Your task to perform on an android device: Clear the shopping cart on walmart. Search for "macbook pro" on walmart, select the first entry, and add it to the cart. Image 0: 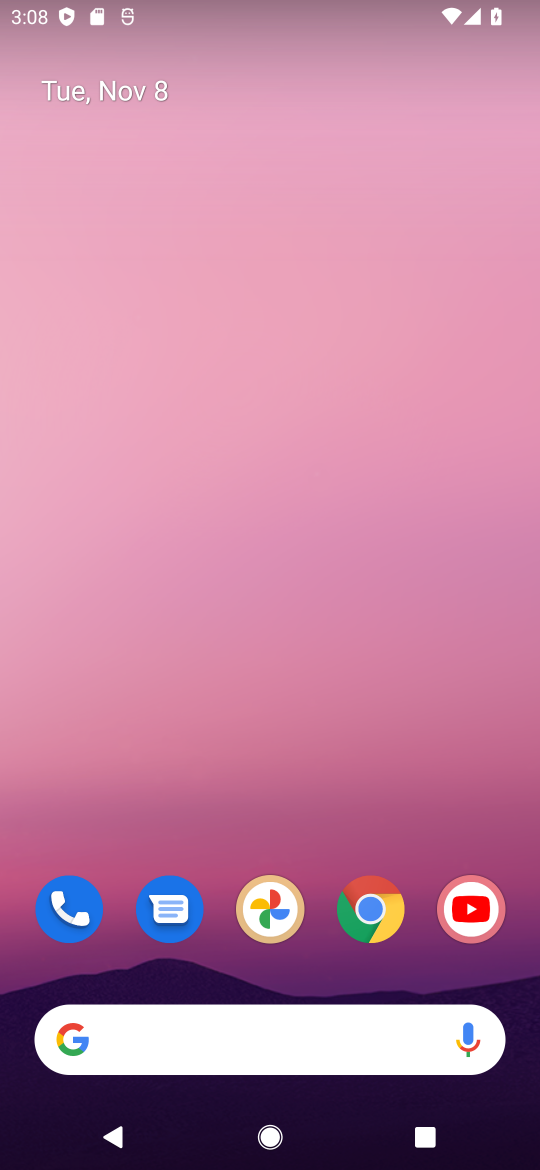
Step 0: click (370, 904)
Your task to perform on an android device: Clear the shopping cart on walmart. Search for "macbook pro" on walmart, select the first entry, and add it to the cart. Image 1: 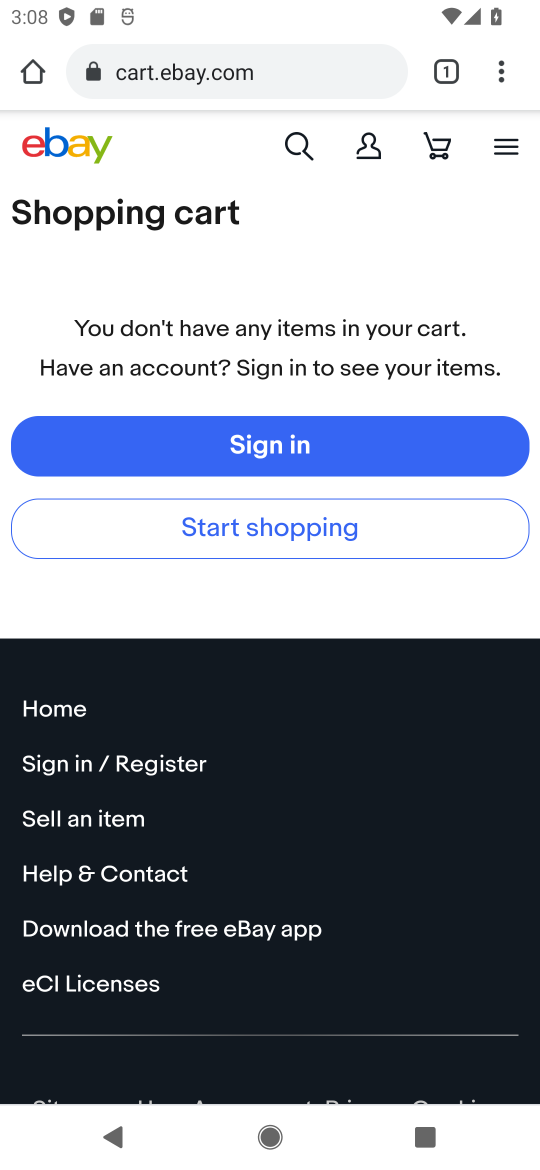
Step 1: click (273, 54)
Your task to perform on an android device: Clear the shopping cart on walmart. Search for "macbook pro" on walmart, select the first entry, and add it to the cart. Image 2: 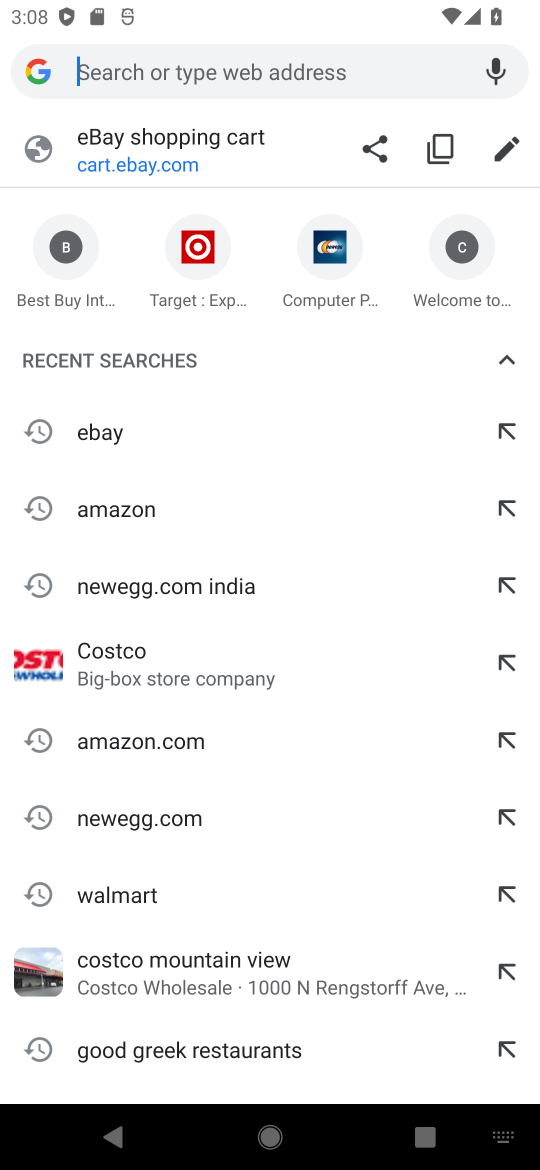
Step 2: click (110, 890)
Your task to perform on an android device: Clear the shopping cart on walmart. Search for "macbook pro" on walmart, select the first entry, and add it to the cart. Image 3: 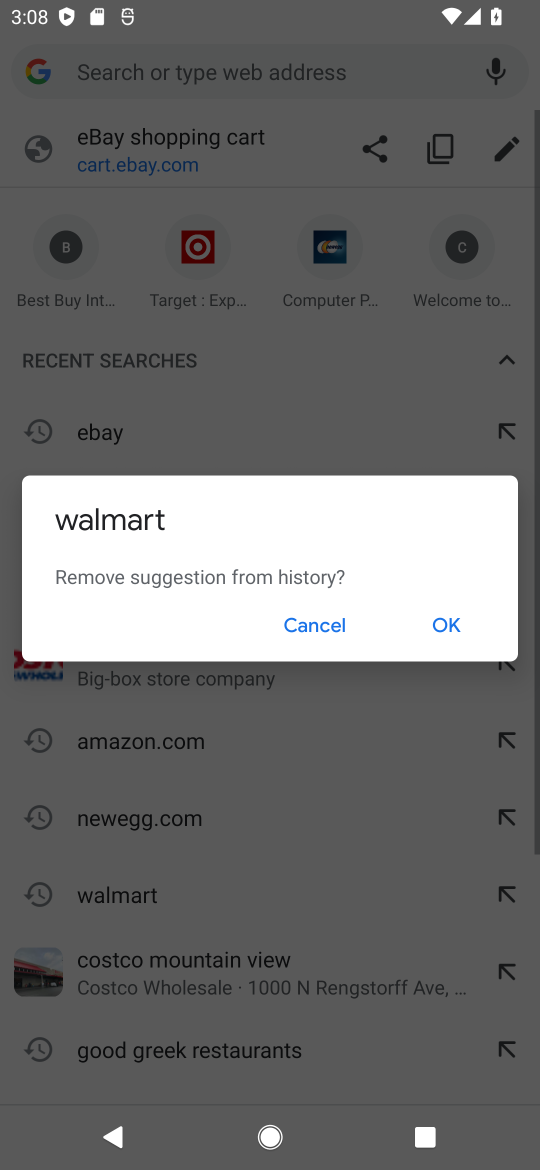
Step 3: click (94, 890)
Your task to perform on an android device: Clear the shopping cart on walmart. Search for "macbook pro" on walmart, select the first entry, and add it to the cart. Image 4: 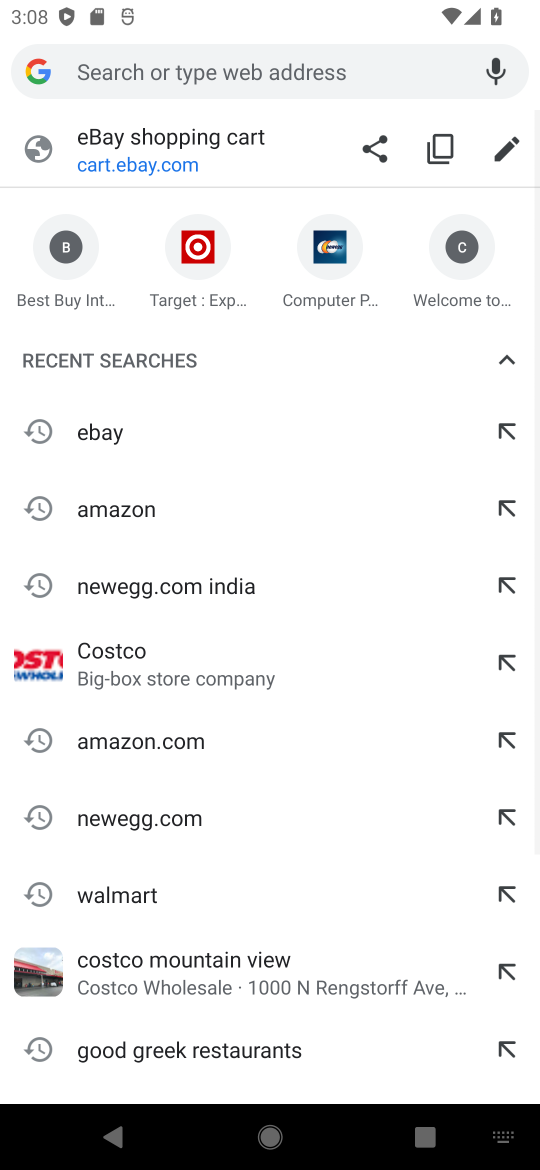
Step 4: click (100, 896)
Your task to perform on an android device: Clear the shopping cart on walmart. Search for "macbook pro" on walmart, select the first entry, and add it to the cart. Image 5: 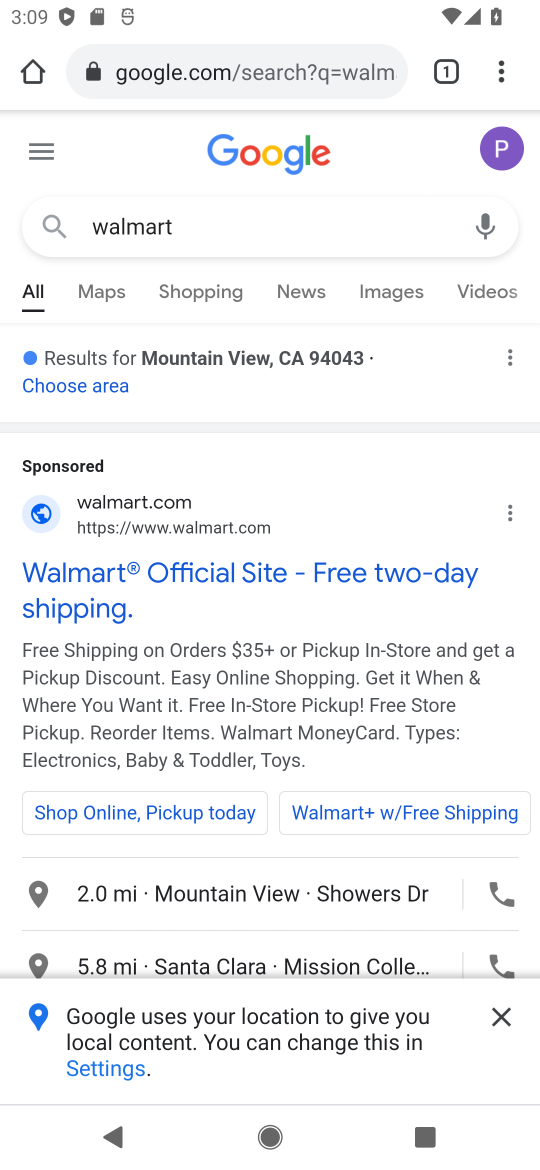
Step 5: click (259, 574)
Your task to perform on an android device: Clear the shopping cart on walmart. Search for "macbook pro" on walmart, select the first entry, and add it to the cart. Image 6: 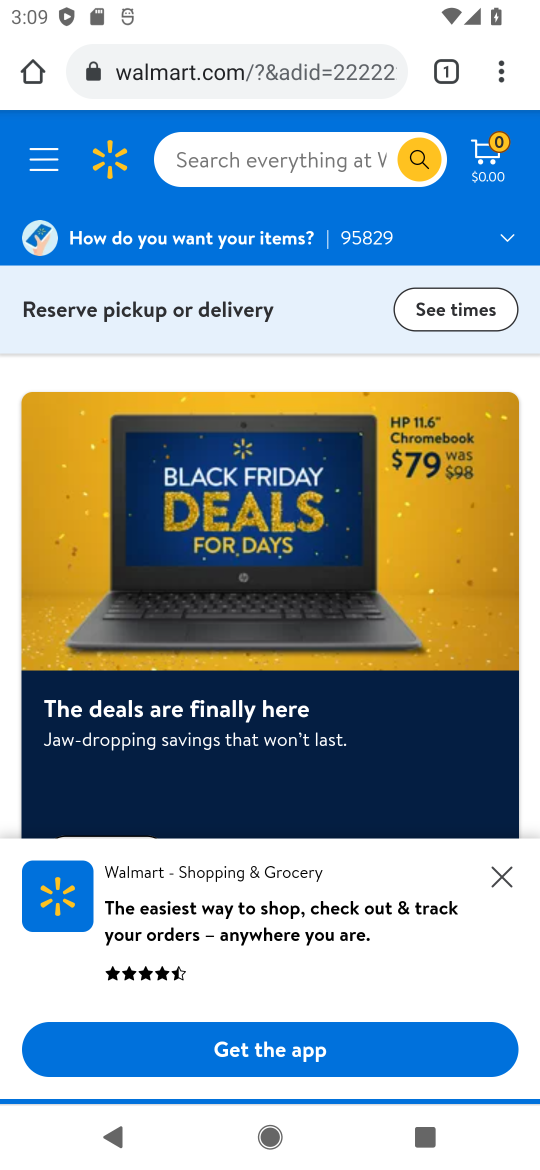
Step 6: click (259, 151)
Your task to perform on an android device: Clear the shopping cart on walmart. Search for "macbook pro" on walmart, select the first entry, and add it to the cart. Image 7: 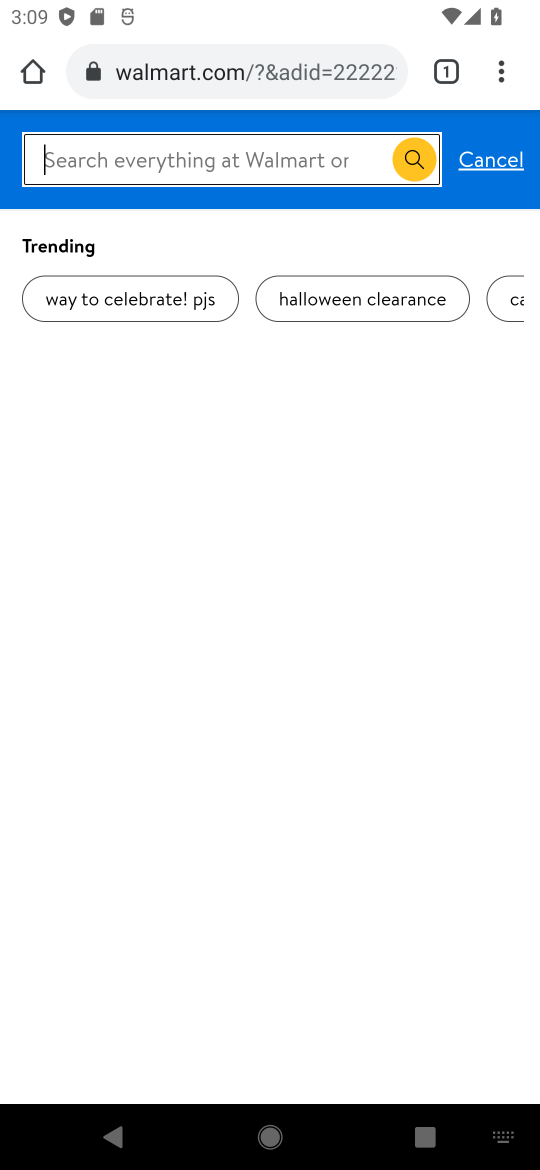
Step 7: type "macbook pro"
Your task to perform on an android device: Clear the shopping cart on walmart. Search for "macbook pro" on walmart, select the first entry, and add it to the cart. Image 8: 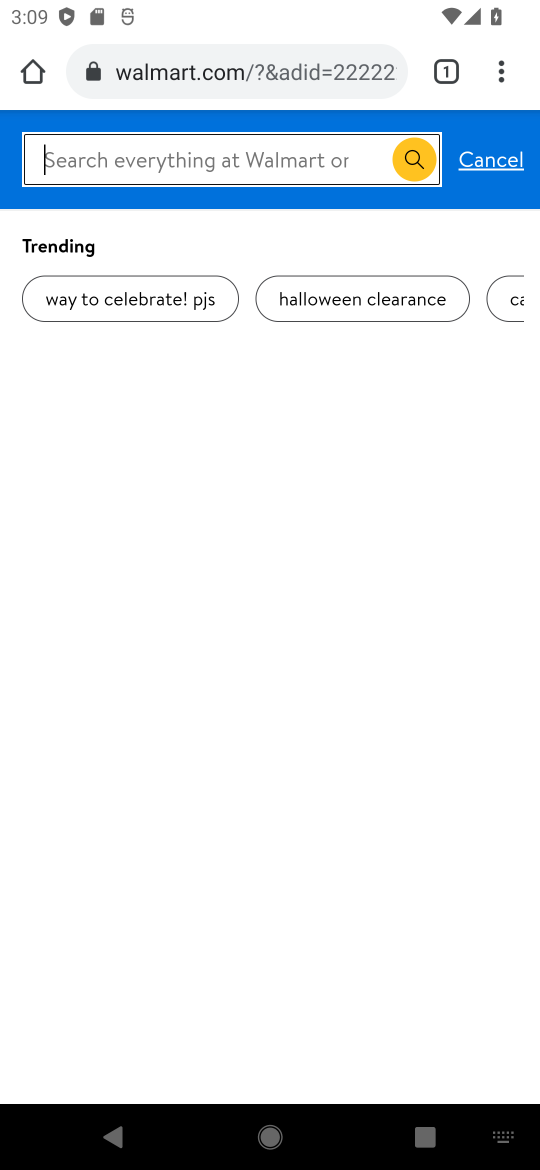
Step 8: press enter
Your task to perform on an android device: Clear the shopping cart on walmart. Search for "macbook pro" on walmart, select the first entry, and add it to the cart. Image 9: 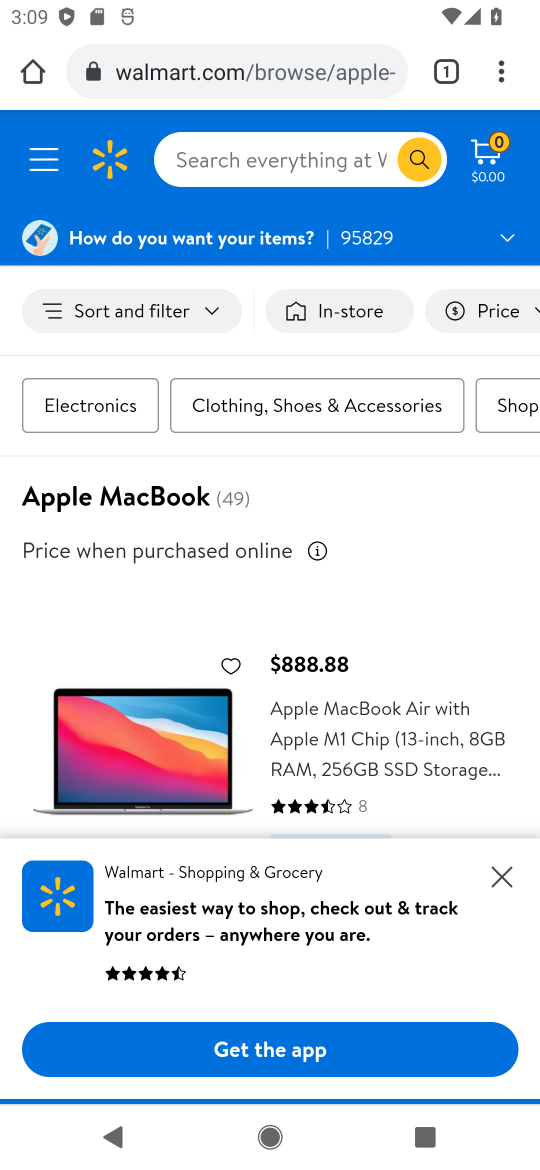
Step 9: click (503, 873)
Your task to perform on an android device: Clear the shopping cart on walmart. Search for "macbook pro" on walmart, select the first entry, and add it to the cart. Image 10: 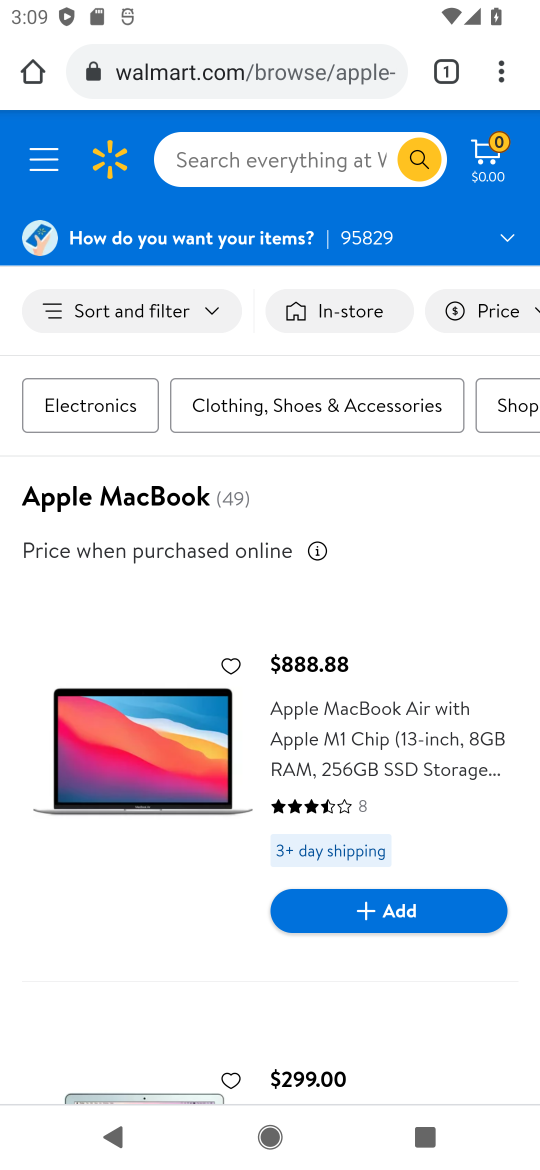
Step 10: task complete